Your task to perform on an android device: make emails show in primary in the gmail app Image 0: 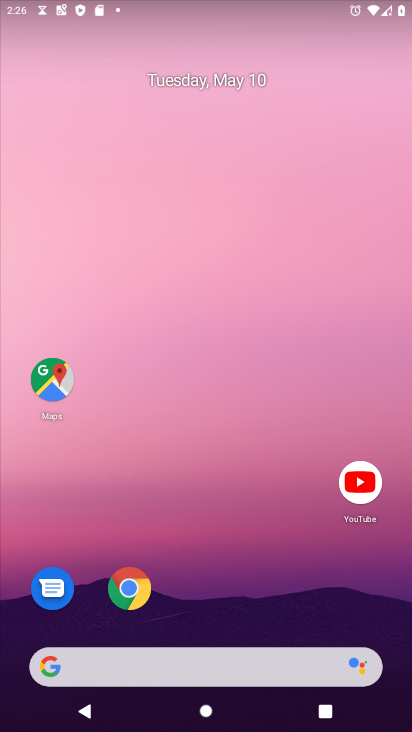
Step 0: click (245, 252)
Your task to perform on an android device: make emails show in primary in the gmail app Image 1: 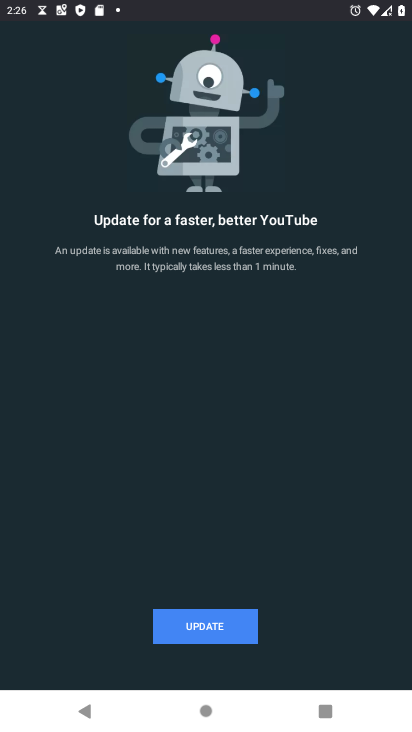
Step 1: press home button
Your task to perform on an android device: make emails show in primary in the gmail app Image 2: 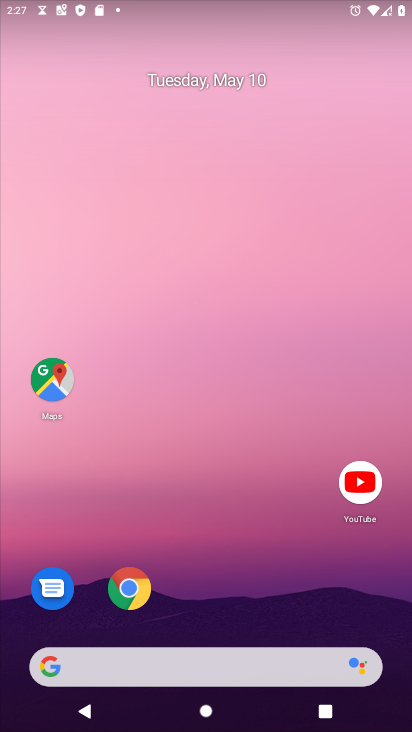
Step 2: drag from (262, 607) to (301, 167)
Your task to perform on an android device: make emails show in primary in the gmail app Image 3: 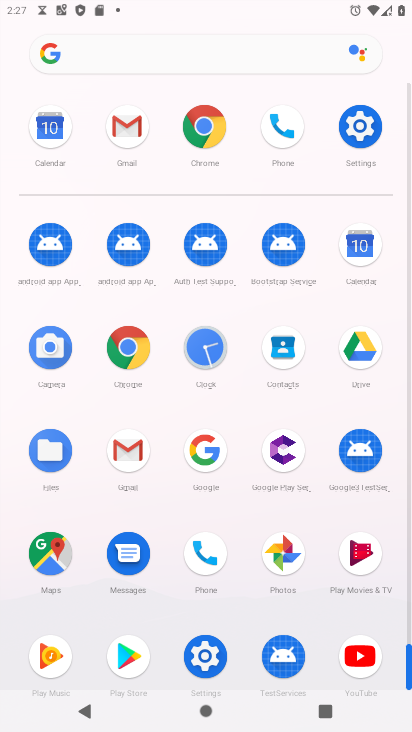
Step 3: click (128, 127)
Your task to perform on an android device: make emails show in primary in the gmail app Image 4: 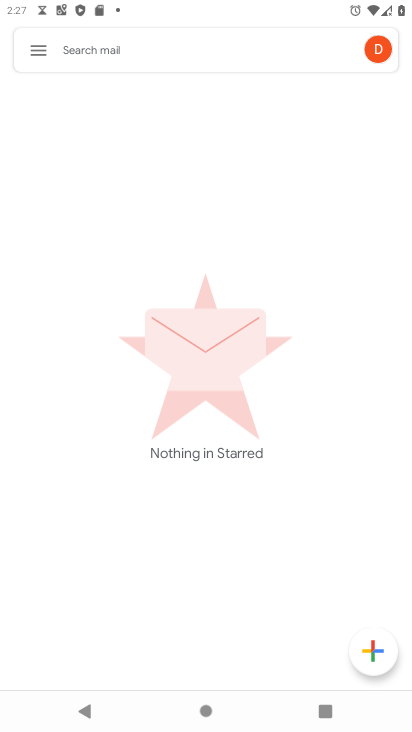
Step 4: click (43, 40)
Your task to perform on an android device: make emails show in primary in the gmail app Image 5: 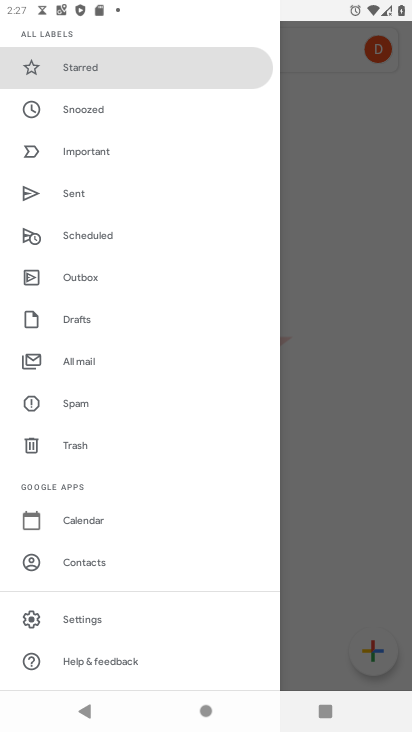
Step 5: drag from (134, 181) to (142, 533)
Your task to perform on an android device: make emails show in primary in the gmail app Image 6: 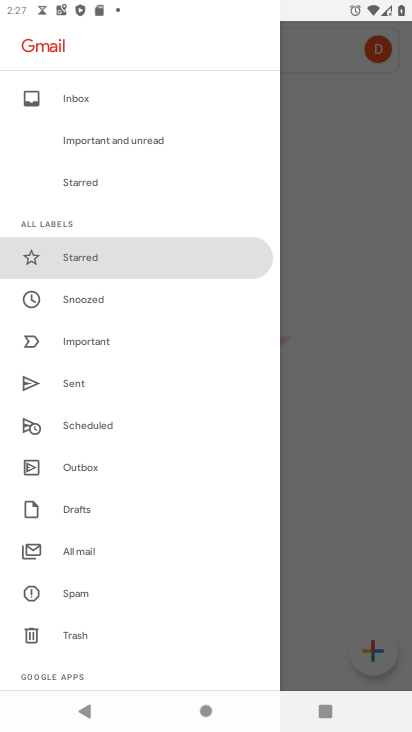
Step 6: drag from (87, 547) to (154, 258)
Your task to perform on an android device: make emails show in primary in the gmail app Image 7: 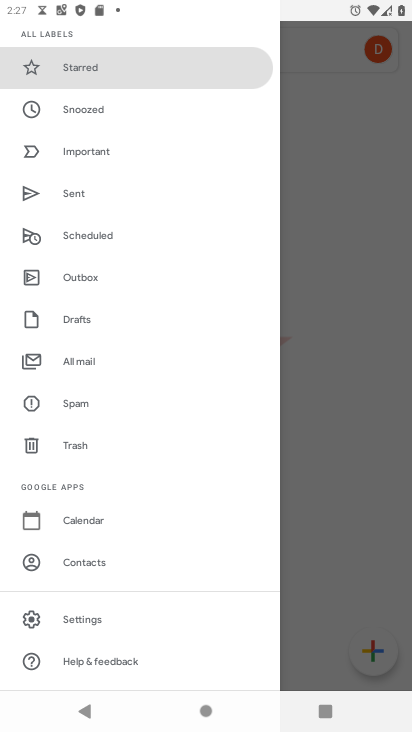
Step 7: click (97, 612)
Your task to perform on an android device: make emails show in primary in the gmail app Image 8: 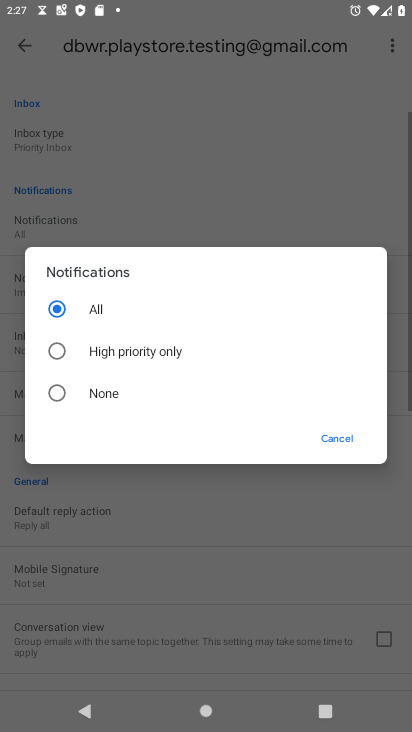
Step 8: click (341, 427)
Your task to perform on an android device: make emails show in primary in the gmail app Image 9: 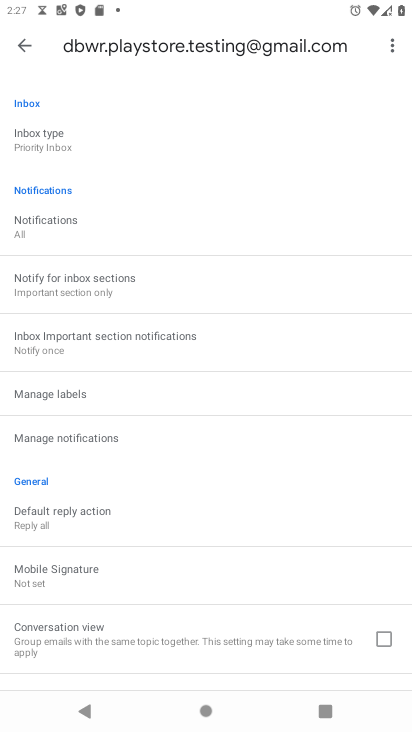
Step 9: task complete